Your task to perform on an android device: Open battery settings Image 0: 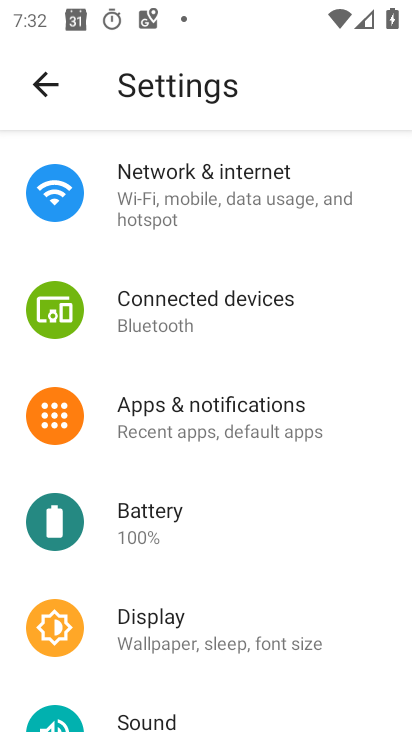
Step 0: click (132, 519)
Your task to perform on an android device: Open battery settings Image 1: 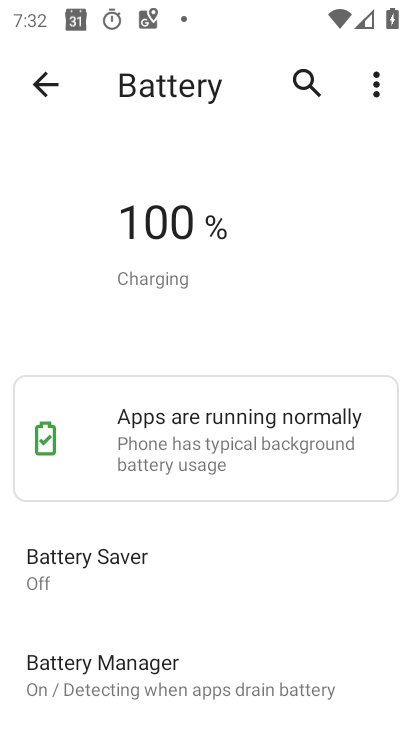
Step 1: task complete